Your task to perform on an android device: toggle airplane mode Image 0: 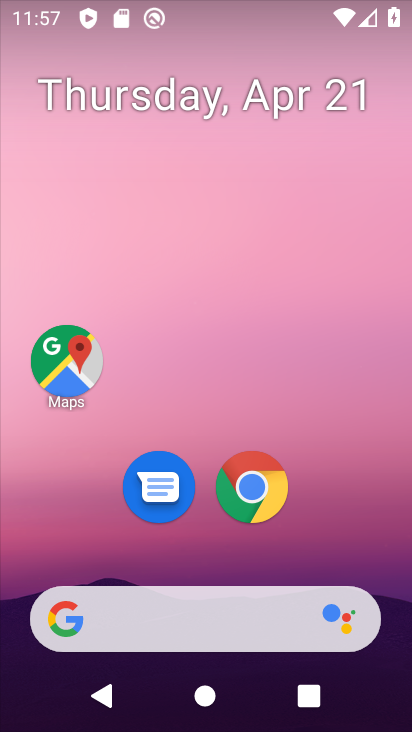
Step 0: drag from (156, 584) to (279, 43)
Your task to perform on an android device: toggle airplane mode Image 1: 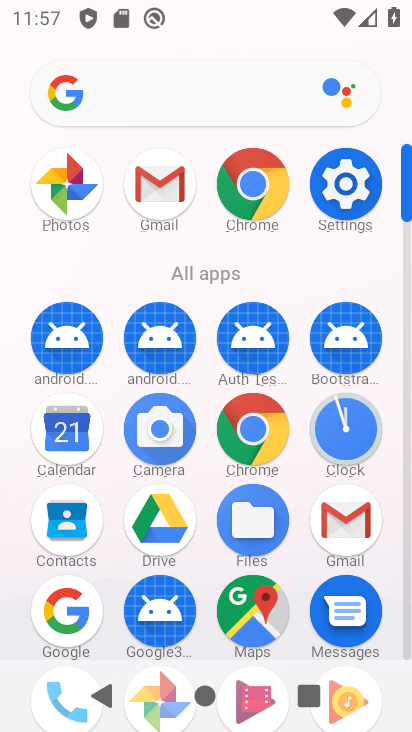
Step 1: click (340, 184)
Your task to perform on an android device: toggle airplane mode Image 2: 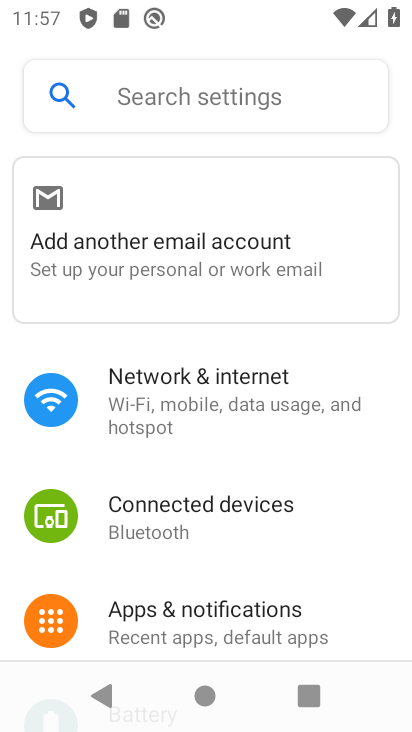
Step 2: click (298, 405)
Your task to perform on an android device: toggle airplane mode Image 3: 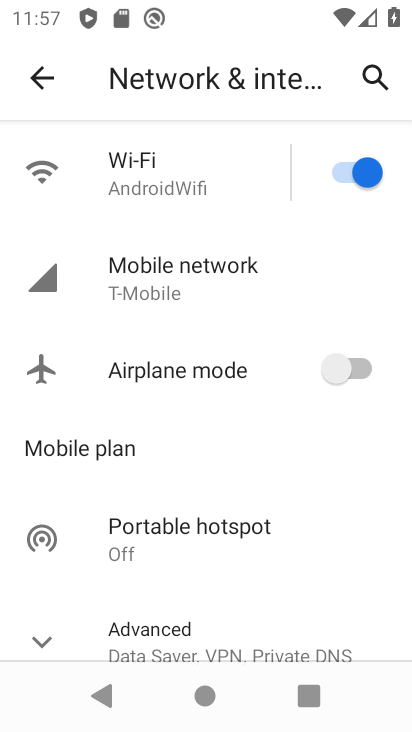
Step 3: click (363, 369)
Your task to perform on an android device: toggle airplane mode Image 4: 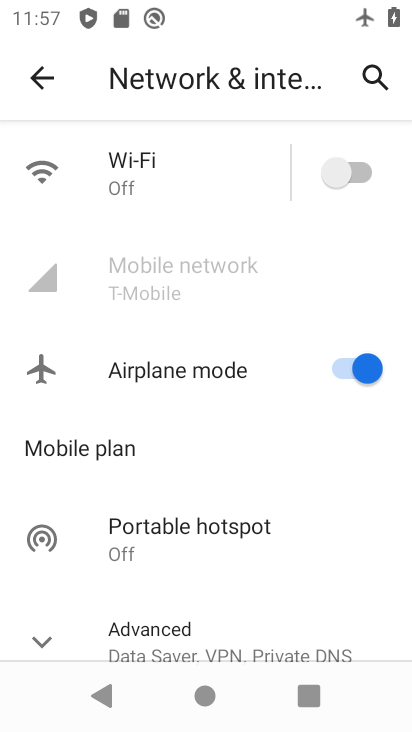
Step 4: task complete